Your task to perform on an android device: Open settings Image 0: 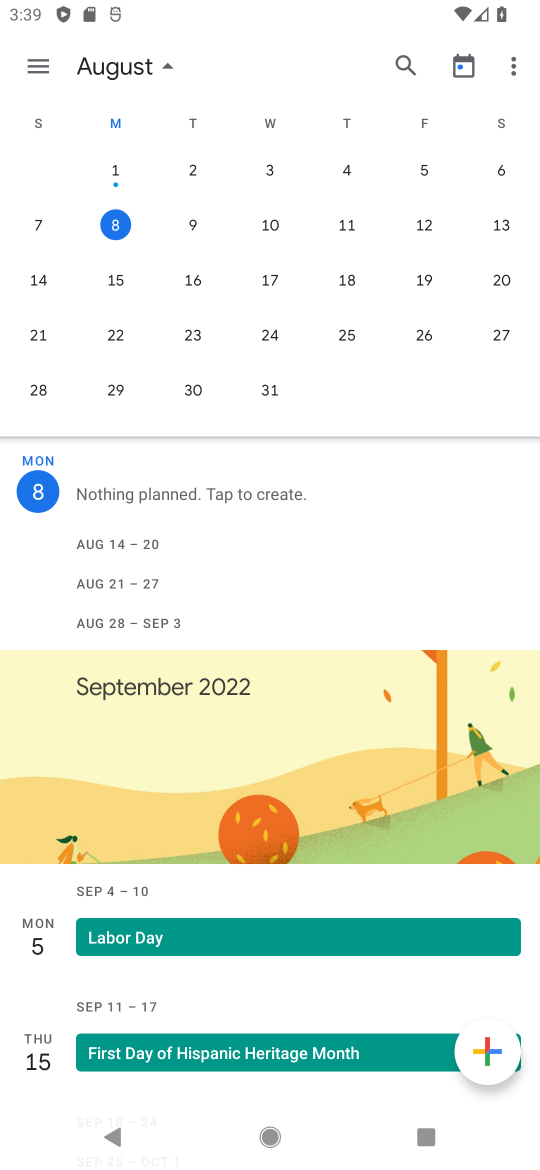
Step 0: press home button
Your task to perform on an android device: Open settings Image 1: 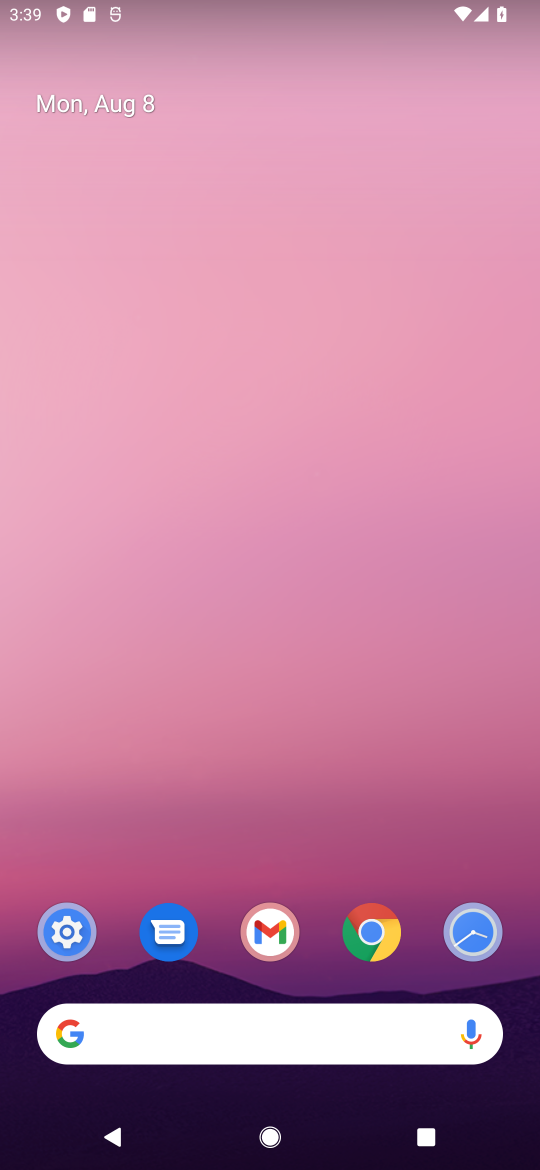
Step 1: click (76, 952)
Your task to perform on an android device: Open settings Image 2: 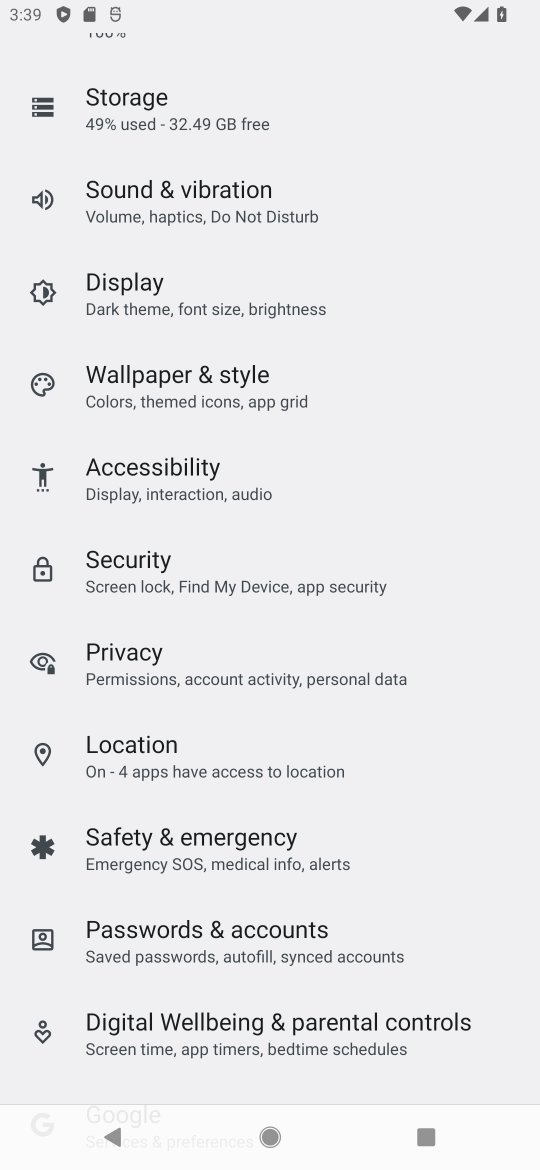
Step 2: task complete